Your task to perform on an android device: turn on bluetooth scan Image 0: 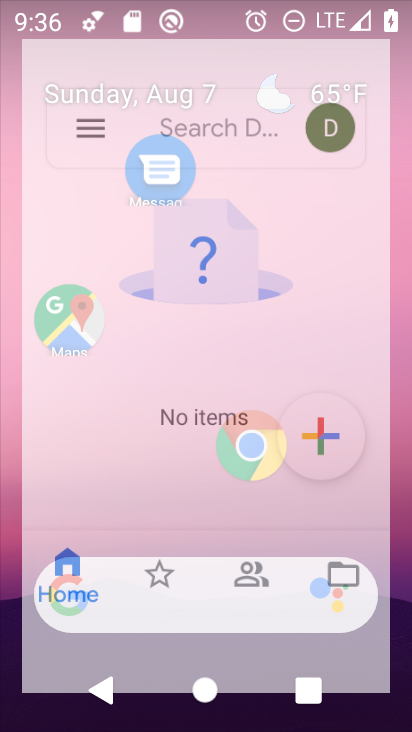
Step 0: drag from (202, 525) to (203, 136)
Your task to perform on an android device: turn on bluetooth scan Image 1: 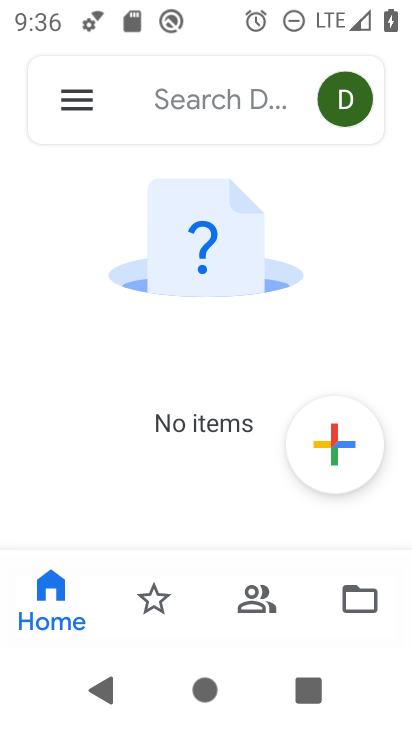
Step 1: press home button
Your task to perform on an android device: turn on bluetooth scan Image 2: 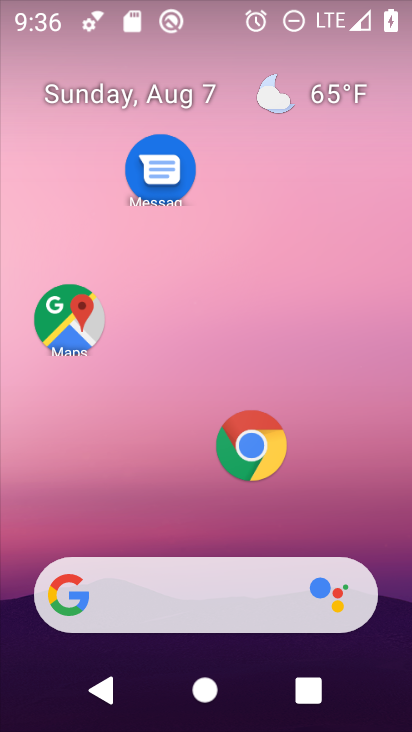
Step 2: drag from (309, 512) to (307, 40)
Your task to perform on an android device: turn on bluetooth scan Image 3: 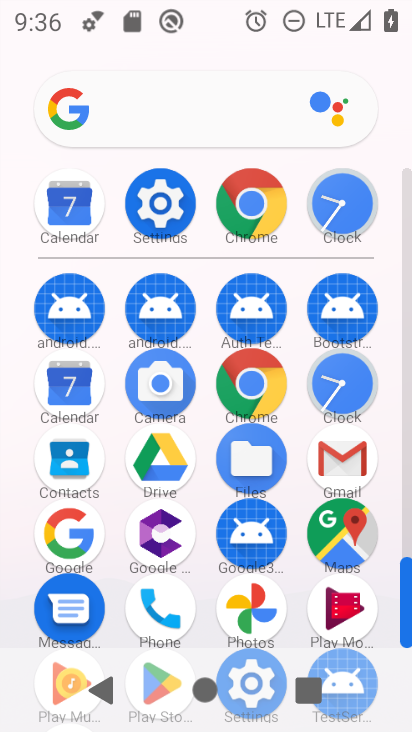
Step 3: click (159, 191)
Your task to perform on an android device: turn on bluetooth scan Image 4: 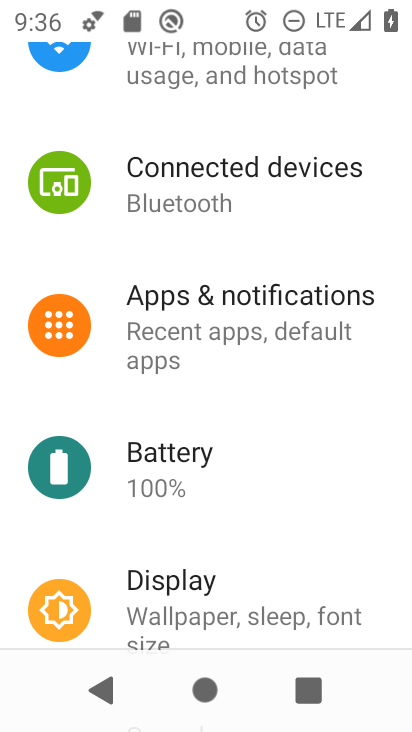
Step 4: drag from (238, 600) to (225, 96)
Your task to perform on an android device: turn on bluetooth scan Image 5: 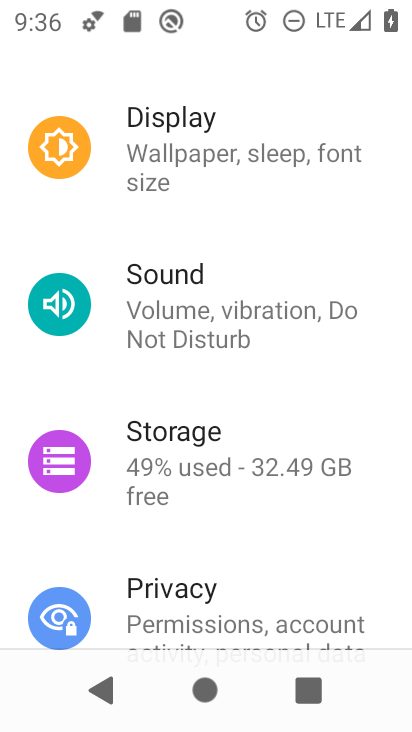
Step 5: drag from (248, 589) to (253, 110)
Your task to perform on an android device: turn on bluetooth scan Image 6: 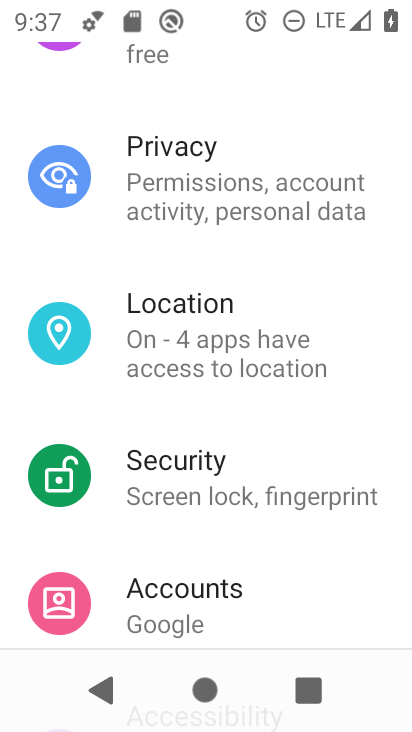
Step 6: click (271, 318)
Your task to perform on an android device: turn on bluetooth scan Image 7: 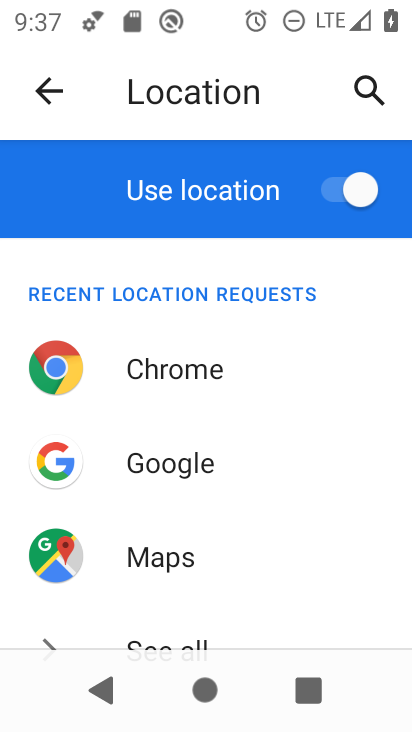
Step 7: drag from (253, 619) to (279, 120)
Your task to perform on an android device: turn on bluetooth scan Image 8: 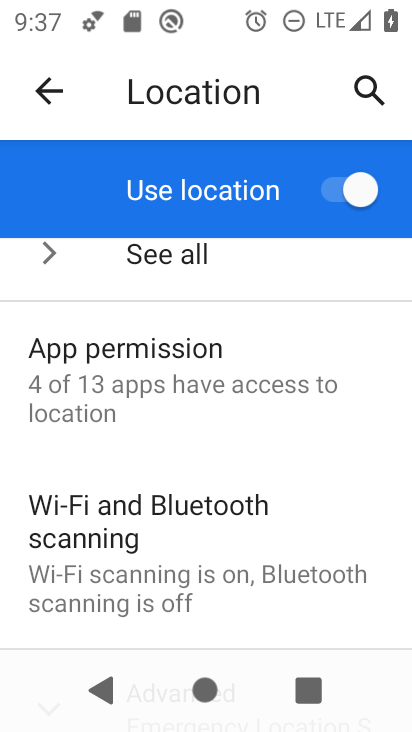
Step 8: click (184, 533)
Your task to perform on an android device: turn on bluetooth scan Image 9: 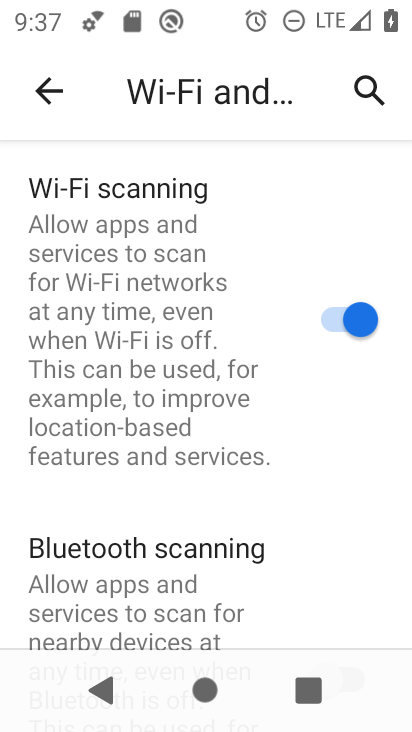
Step 9: drag from (270, 582) to (268, 245)
Your task to perform on an android device: turn on bluetooth scan Image 10: 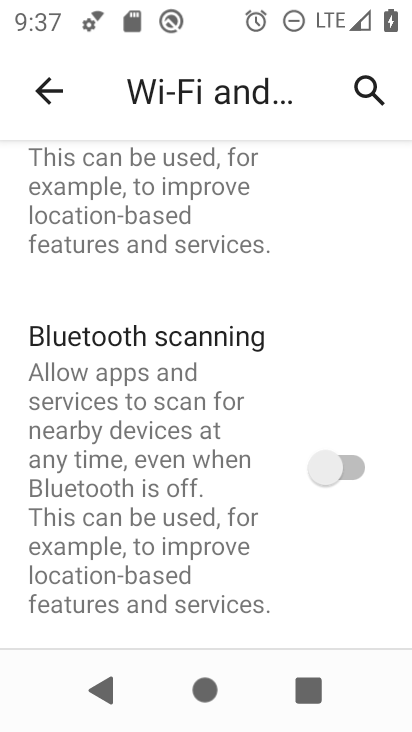
Step 10: click (349, 459)
Your task to perform on an android device: turn on bluetooth scan Image 11: 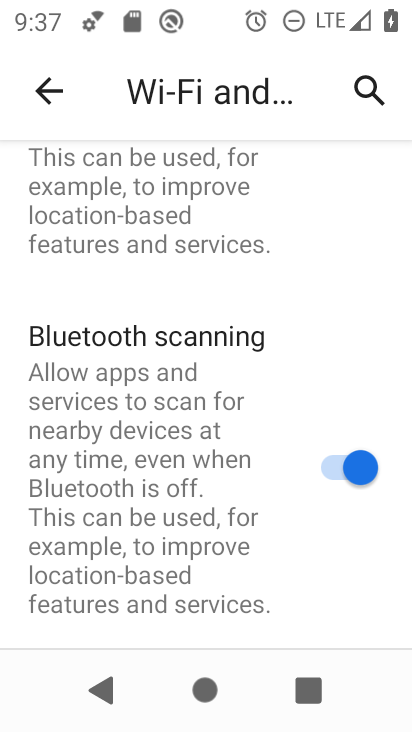
Step 11: task complete